Your task to perform on an android device: Open Google Maps and go to "Timeline" Image 0: 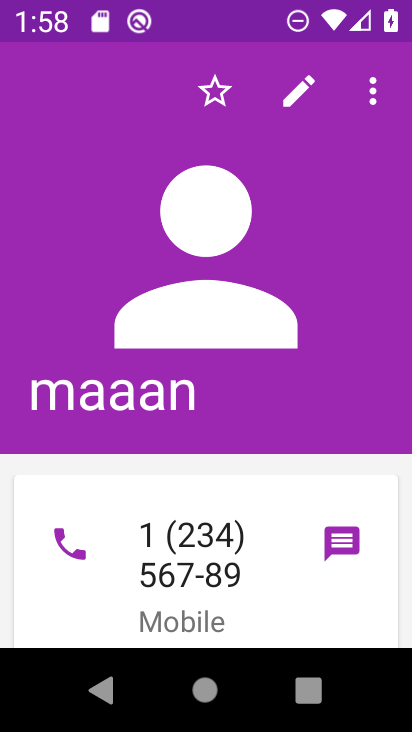
Step 0: press home button
Your task to perform on an android device: Open Google Maps and go to "Timeline" Image 1: 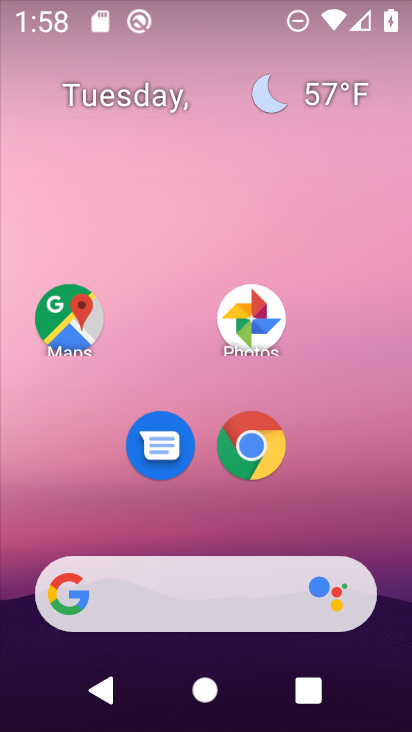
Step 1: drag from (366, 530) to (361, 228)
Your task to perform on an android device: Open Google Maps and go to "Timeline" Image 2: 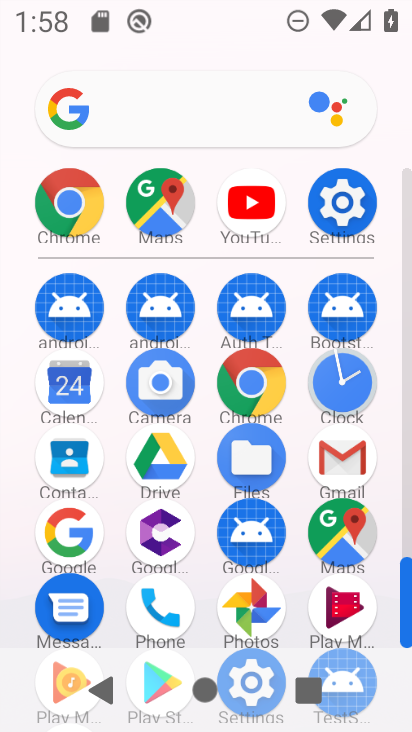
Step 2: click (331, 558)
Your task to perform on an android device: Open Google Maps and go to "Timeline" Image 3: 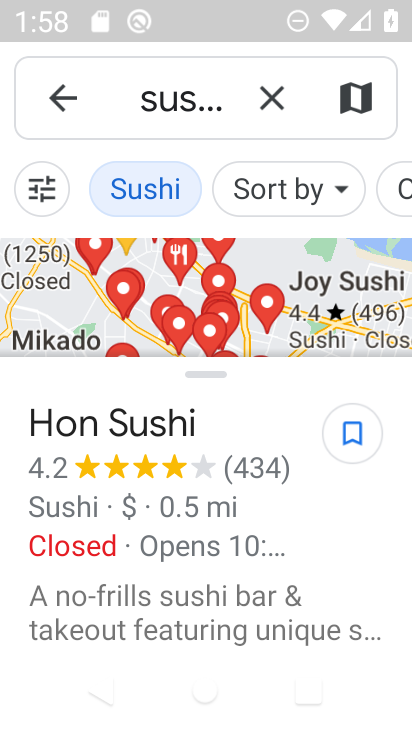
Step 3: task complete